Your task to perform on an android device: See recent photos Image 0: 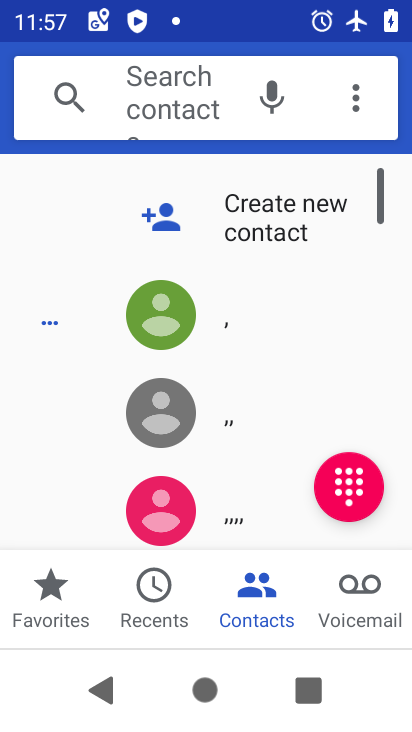
Step 0: press home button
Your task to perform on an android device: See recent photos Image 1: 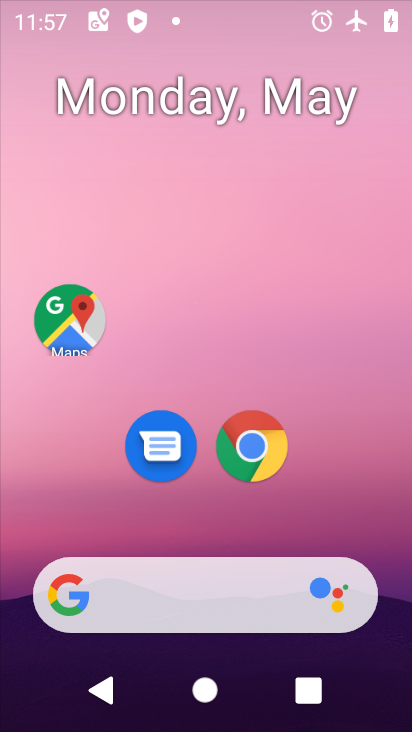
Step 1: drag from (240, 570) to (251, 257)
Your task to perform on an android device: See recent photos Image 2: 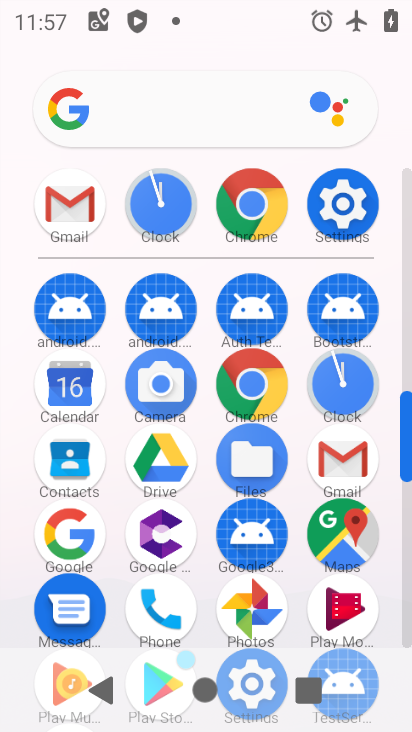
Step 2: click (243, 614)
Your task to perform on an android device: See recent photos Image 3: 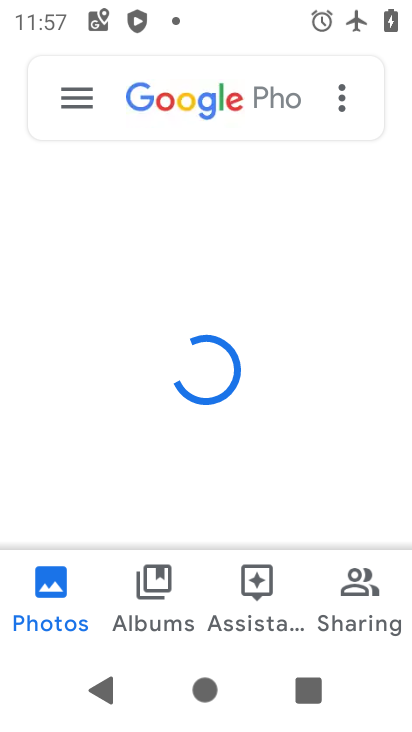
Step 3: click (144, 562)
Your task to perform on an android device: See recent photos Image 4: 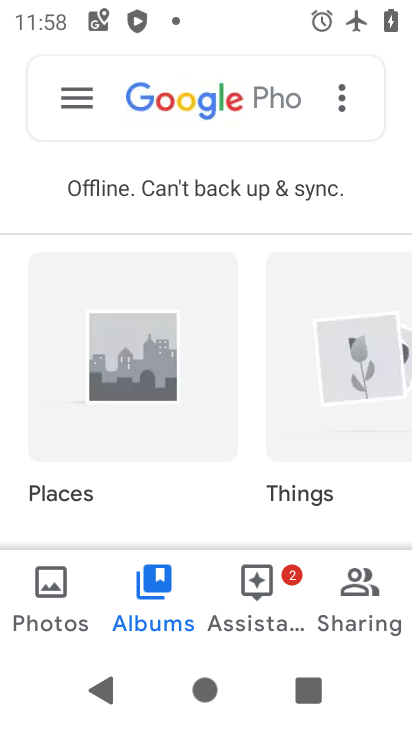
Step 4: click (63, 583)
Your task to perform on an android device: See recent photos Image 5: 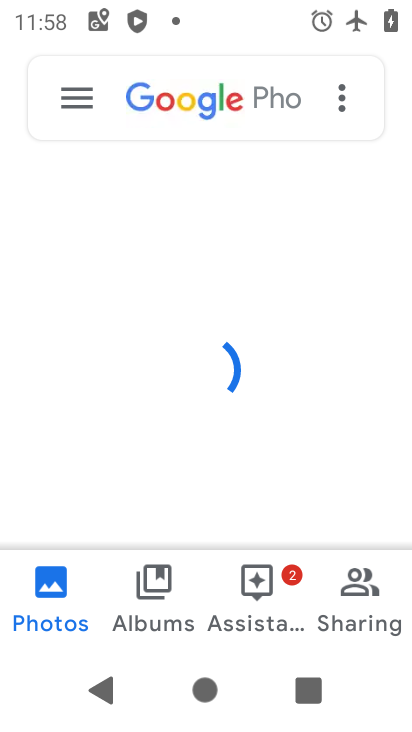
Step 5: task complete